Your task to perform on an android device: Open settings on Google Maps Image 0: 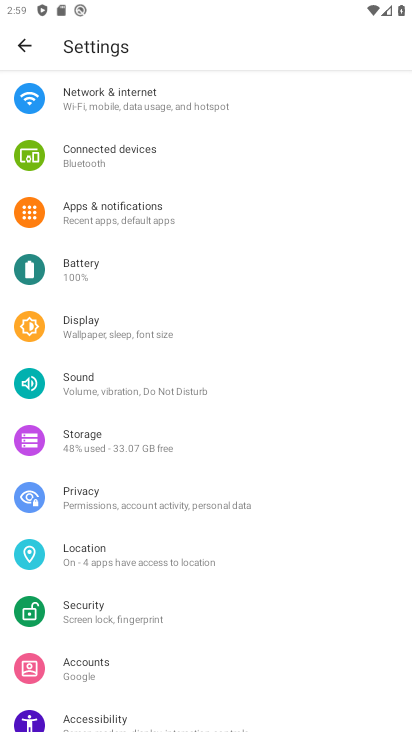
Step 0: press home button
Your task to perform on an android device: Open settings on Google Maps Image 1: 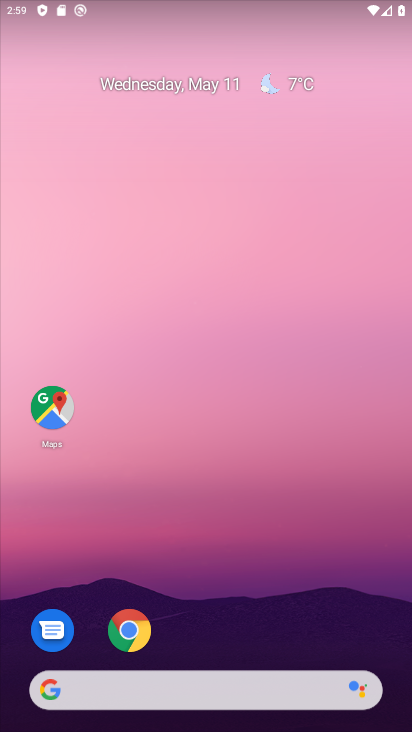
Step 1: click (34, 430)
Your task to perform on an android device: Open settings on Google Maps Image 2: 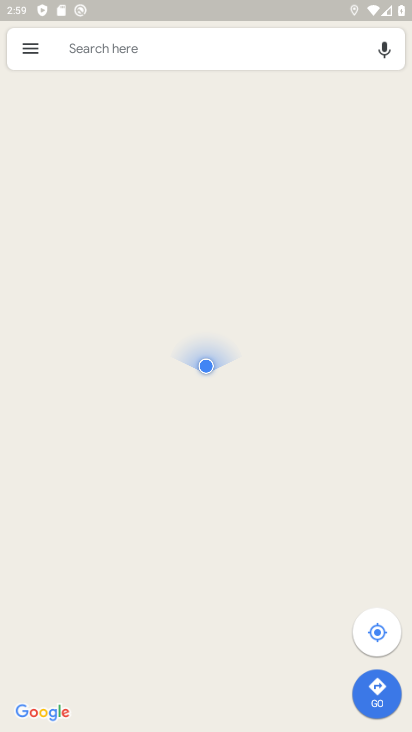
Step 2: click (44, 51)
Your task to perform on an android device: Open settings on Google Maps Image 3: 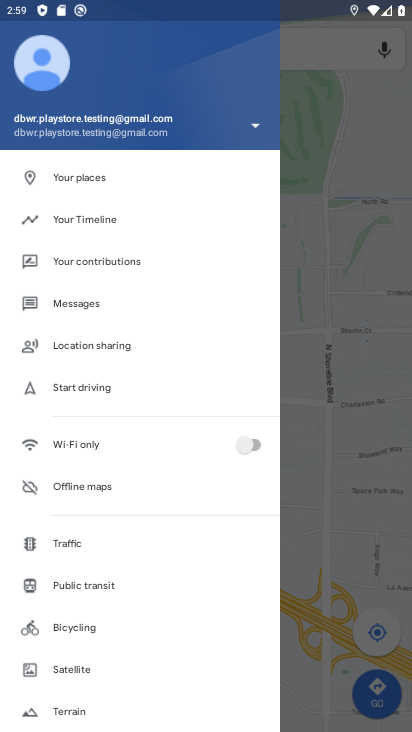
Step 3: drag from (107, 712) to (198, 325)
Your task to perform on an android device: Open settings on Google Maps Image 4: 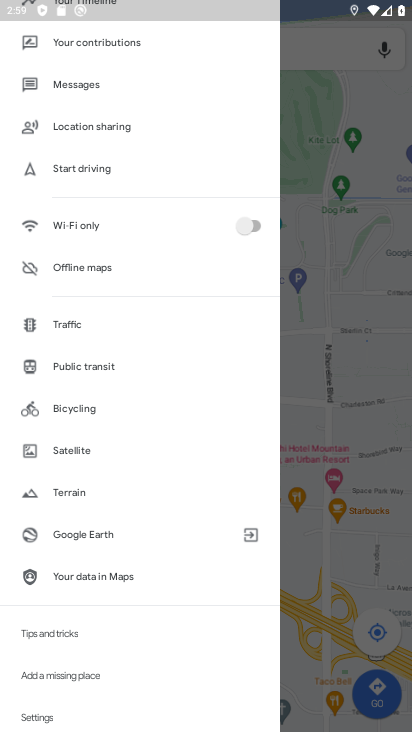
Step 4: drag from (117, 680) to (189, 418)
Your task to perform on an android device: Open settings on Google Maps Image 5: 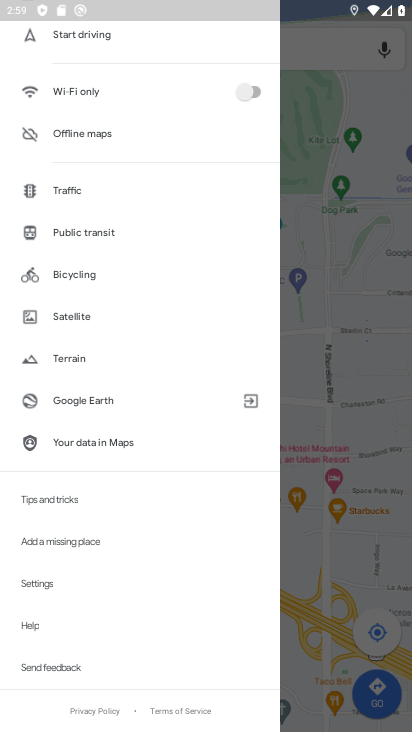
Step 5: click (87, 600)
Your task to perform on an android device: Open settings on Google Maps Image 6: 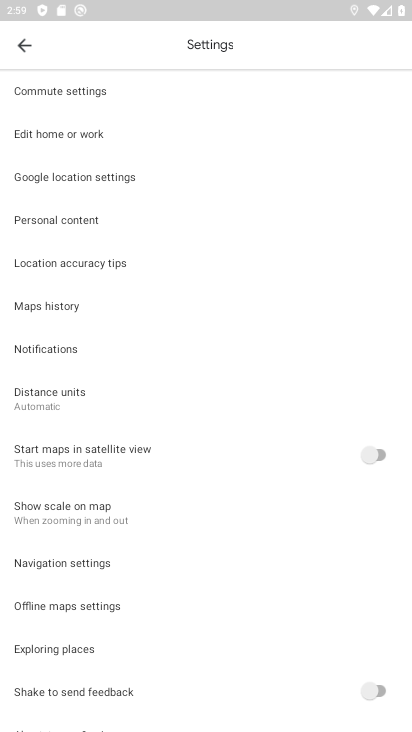
Step 6: task complete